Your task to perform on an android device: Go to Google Image 0: 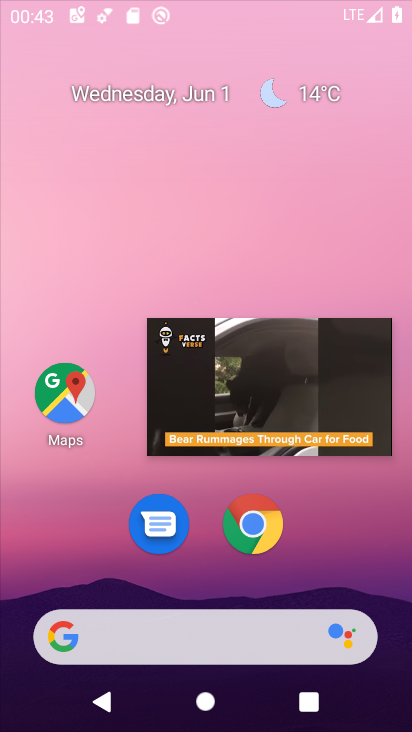
Step 0: drag from (305, 395) to (310, 731)
Your task to perform on an android device: Go to Google Image 1: 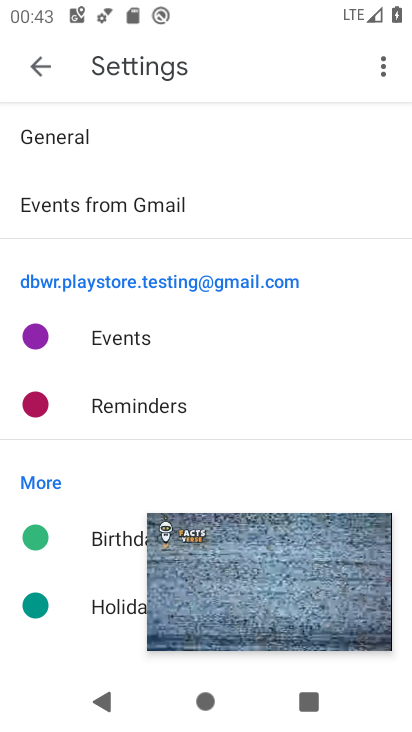
Step 1: drag from (303, 566) to (151, 730)
Your task to perform on an android device: Go to Google Image 2: 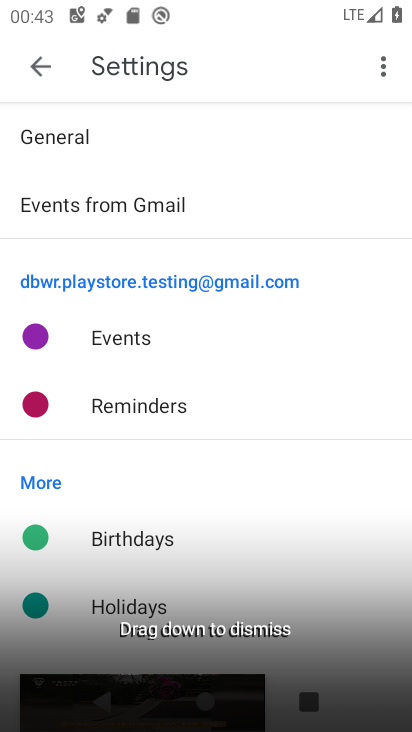
Step 2: press home button
Your task to perform on an android device: Go to Google Image 3: 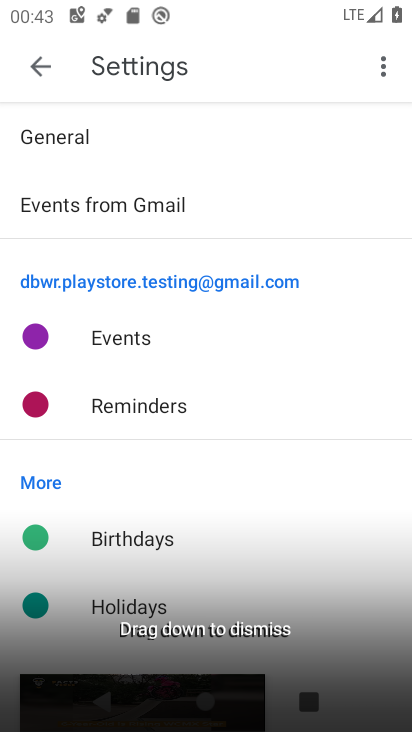
Step 3: drag from (151, 730) to (411, 508)
Your task to perform on an android device: Go to Google Image 4: 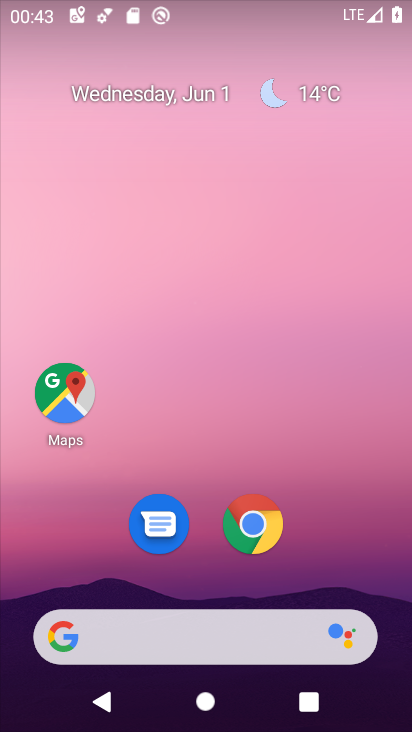
Step 4: click (222, 645)
Your task to perform on an android device: Go to Google Image 5: 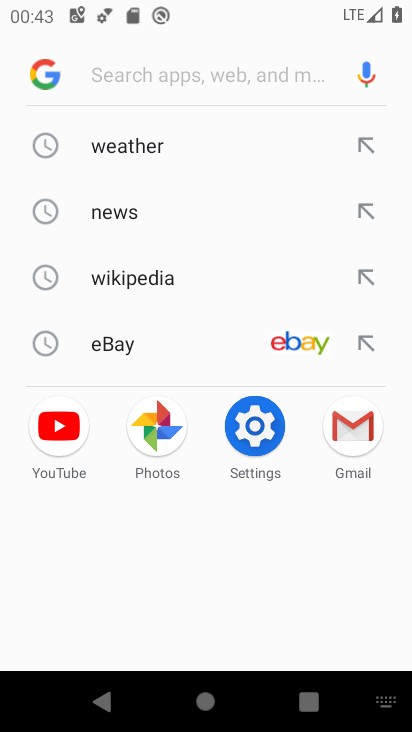
Step 5: click (48, 77)
Your task to perform on an android device: Go to Google Image 6: 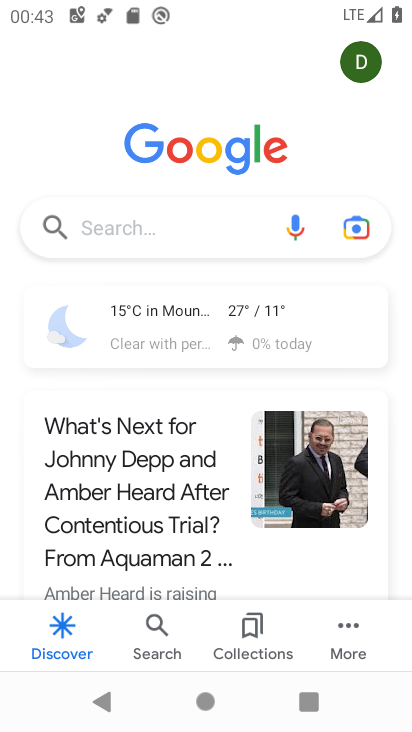
Step 6: task complete